Your task to perform on an android device: add a contact Image 0: 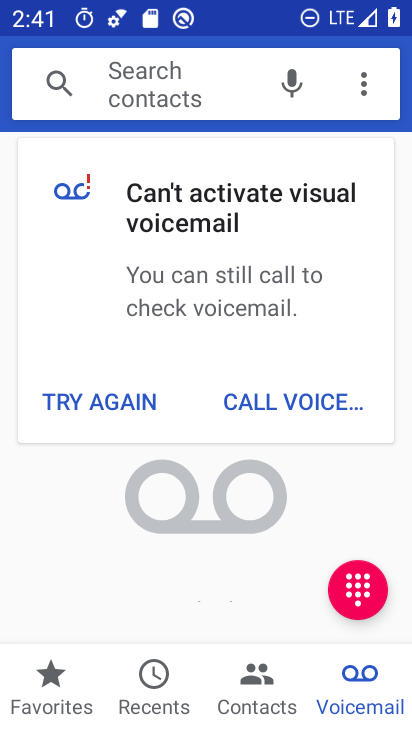
Step 0: press home button
Your task to perform on an android device: add a contact Image 1: 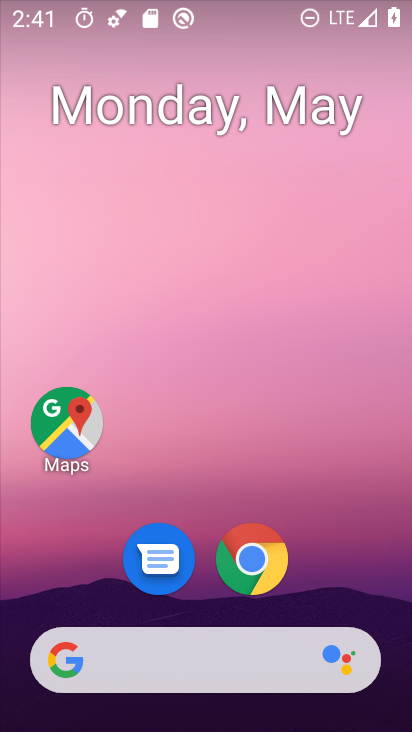
Step 1: drag from (341, 605) to (383, 5)
Your task to perform on an android device: add a contact Image 2: 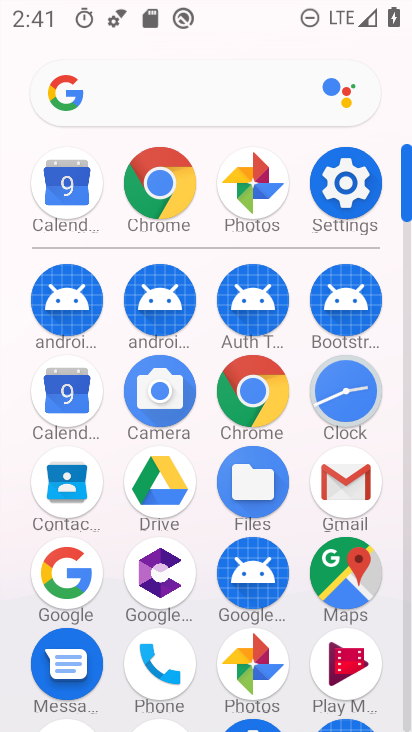
Step 2: click (60, 479)
Your task to perform on an android device: add a contact Image 3: 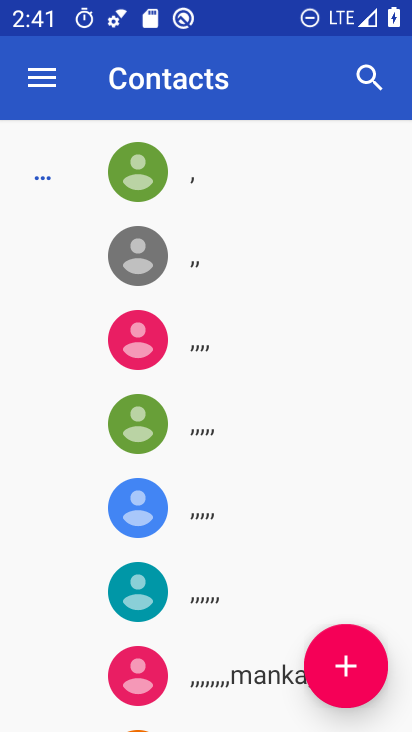
Step 3: click (343, 675)
Your task to perform on an android device: add a contact Image 4: 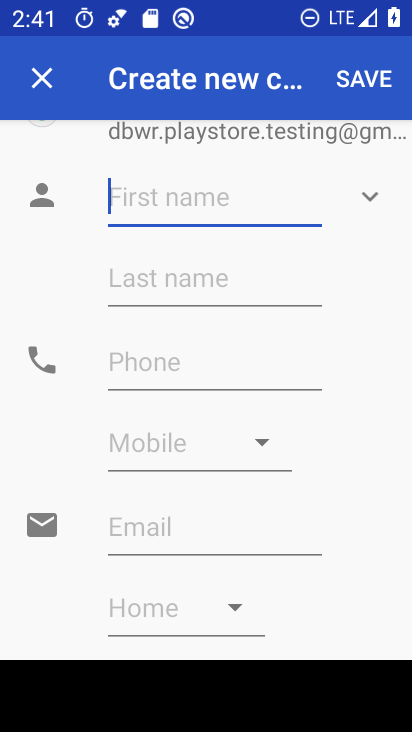
Step 4: click (149, 205)
Your task to perform on an android device: add a contact Image 5: 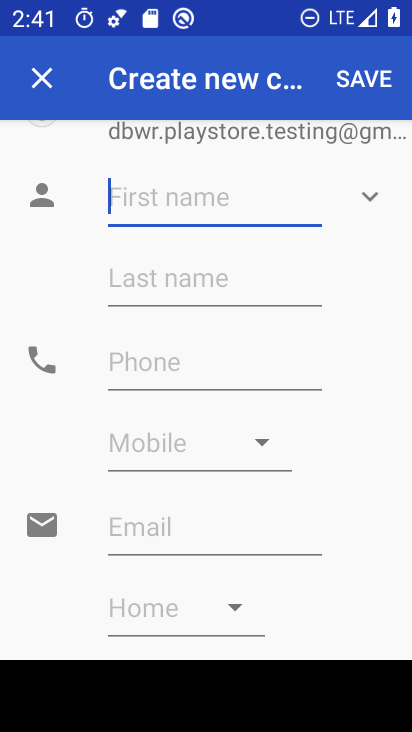
Step 5: type "tammy"
Your task to perform on an android device: add a contact Image 6: 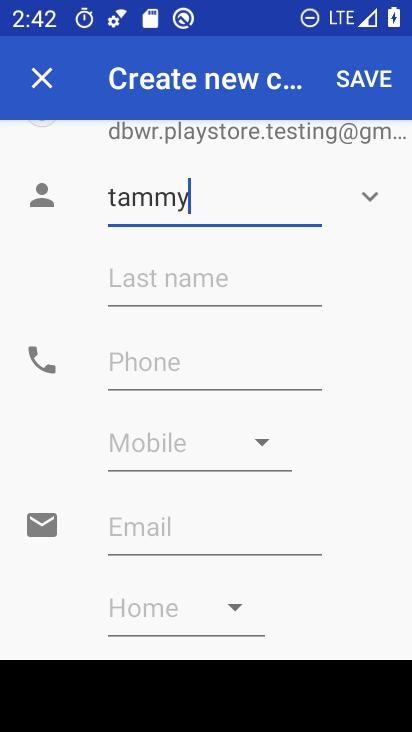
Step 6: click (130, 380)
Your task to perform on an android device: add a contact Image 7: 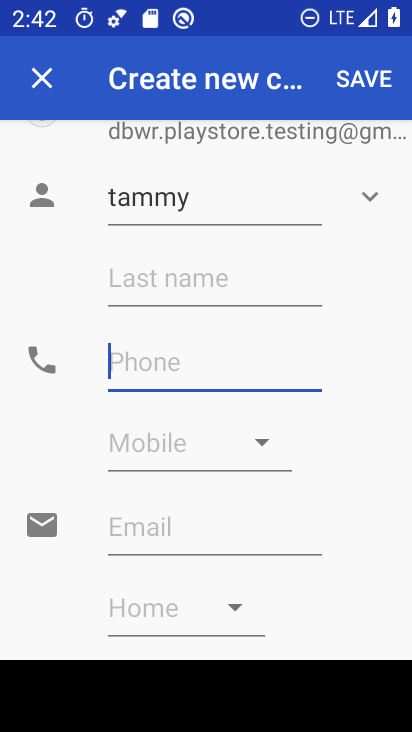
Step 7: type "87659876"
Your task to perform on an android device: add a contact Image 8: 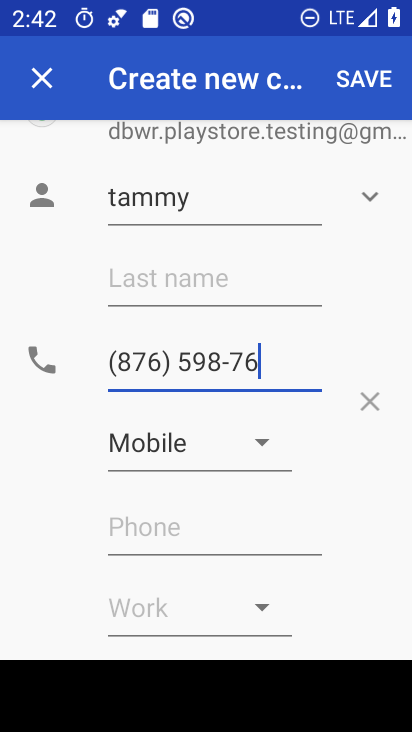
Step 8: click (354, 95)
Your task to perform on an android device: add a contact Image 9: 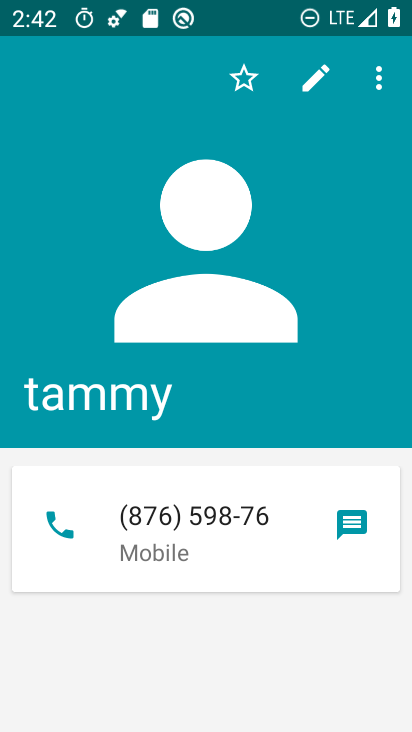
Step 9: task complete